Your task to perform on an android device: Empty the shopping cart on newegg. Search for razer blade on newegg, select the first entry, add it to the cart, then select checkout. Image 0: 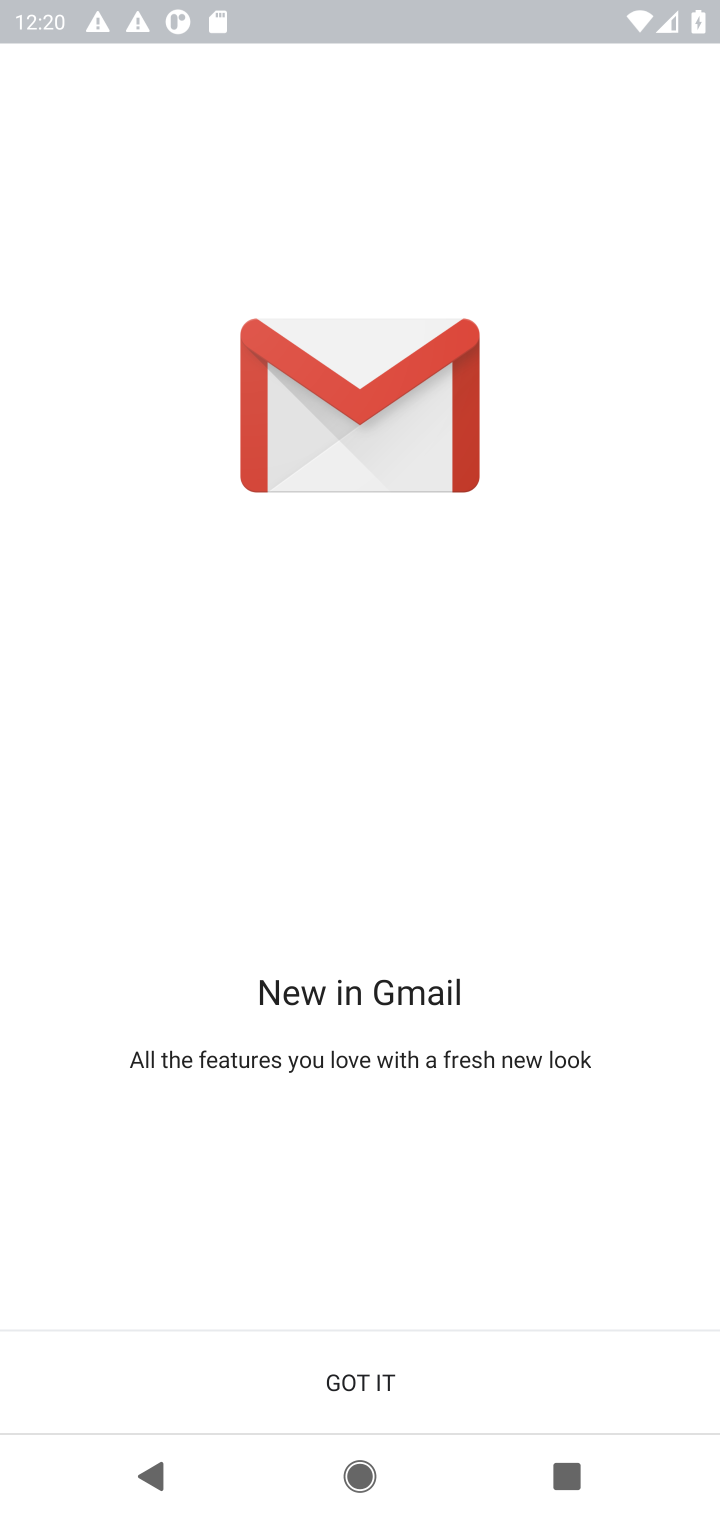
Step 0: press home button
Your task to perform on an android device: Empty the shopping cart on newegg. Search for razer blade on newegg, select the first entry, add it to the cart, then select checkout. Image 1: 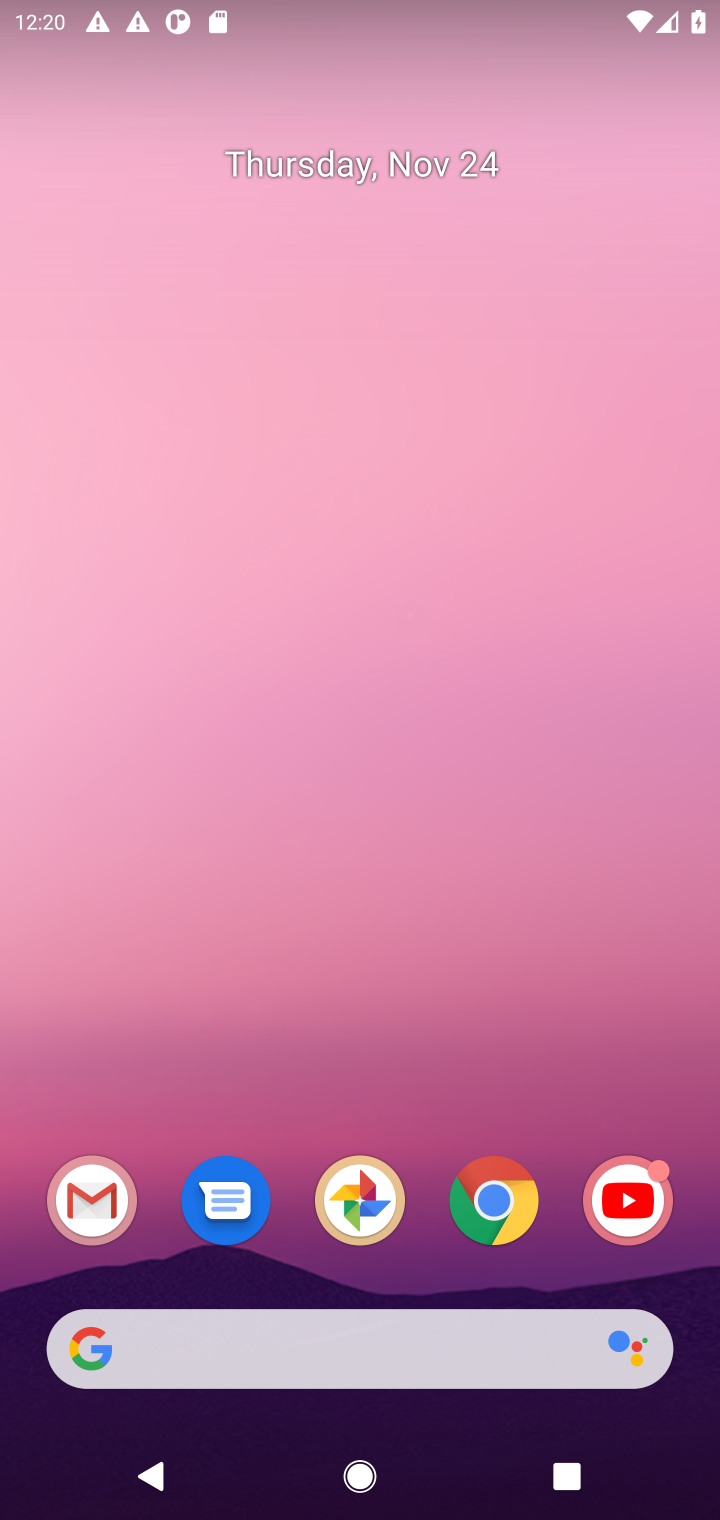
Step 1: click (460, 1377)
Your task to perform on an android device: Empty the shopping cart on newegg. Search for razer blade on newegg, select the first entry, add it to the cart, then select checkout. Image 2: 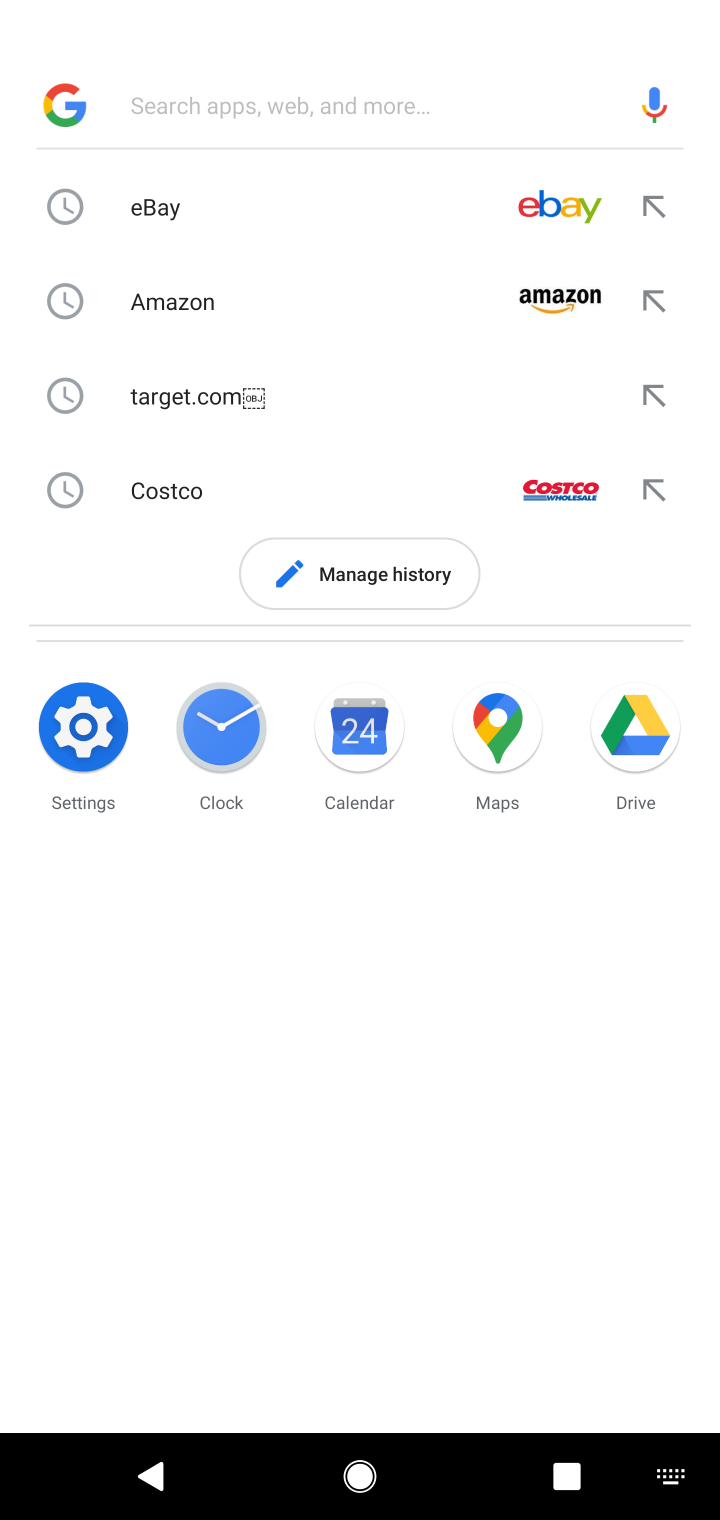
Step 2: type "newegg"
Your task to perform on an android device: Empty the shopping cart on newegg. Search for razer blade on newegg, select the first entry, add it to the cart, then select checkout. Image 3: 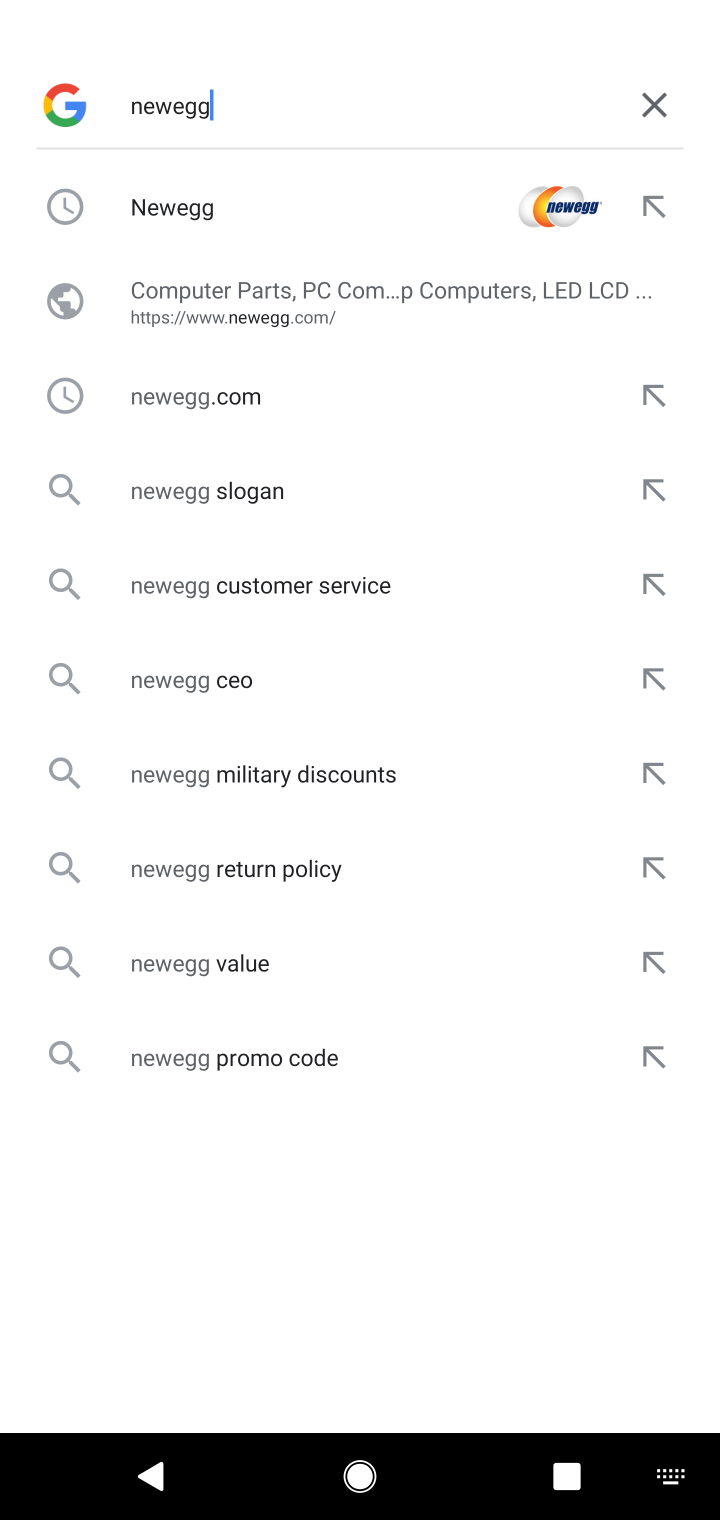
Step 3: click (309, 192)
Your task to perform on an android device: Empty the shopping cart on newegg. Search for razer blade on newegg, select the first entry, add it to the cart, then select checkout. Image 4: 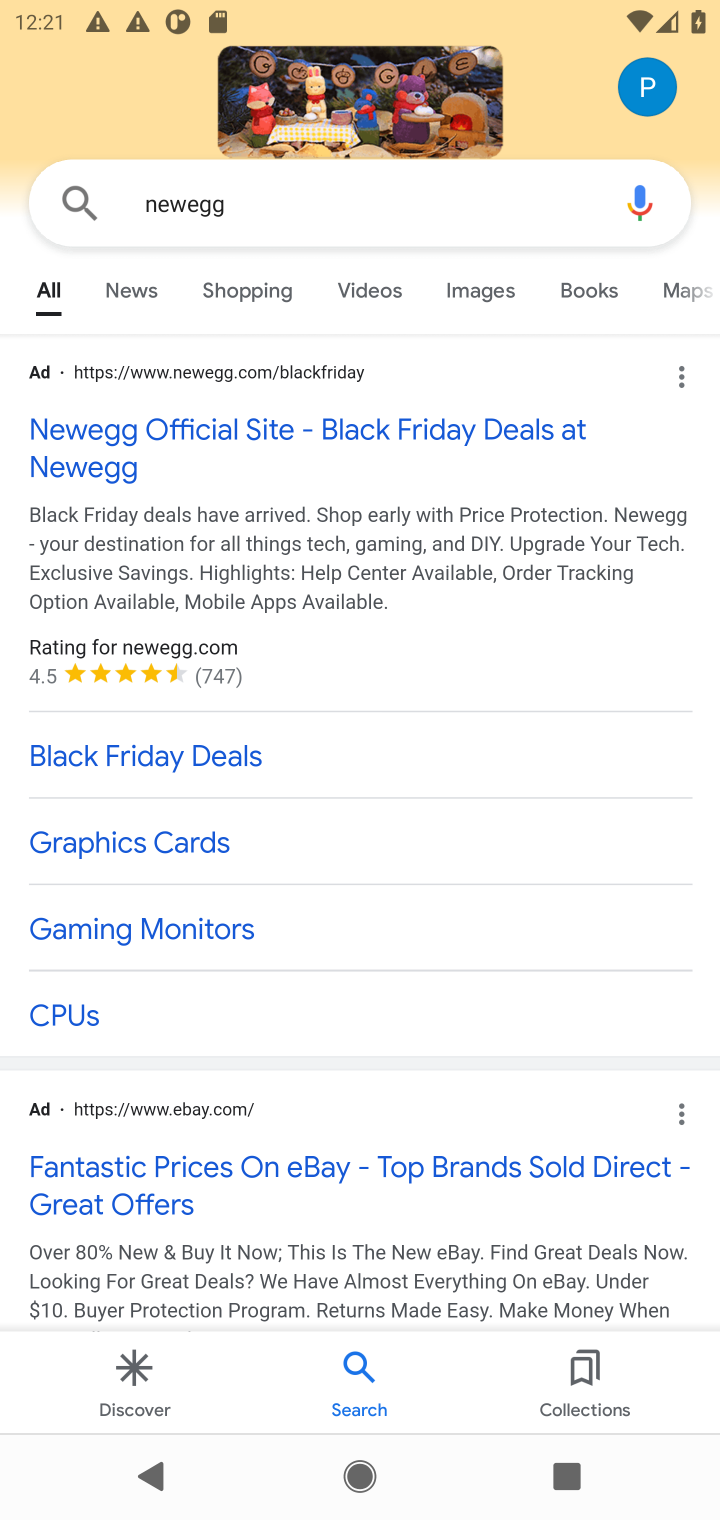
Step 4: click (273, 399)
Your task to perform on an android device: Empty the shopping cart on newegg. Search for razer blade on newegg, select the first entry, add it to the cart, then select checkout. Image 5: 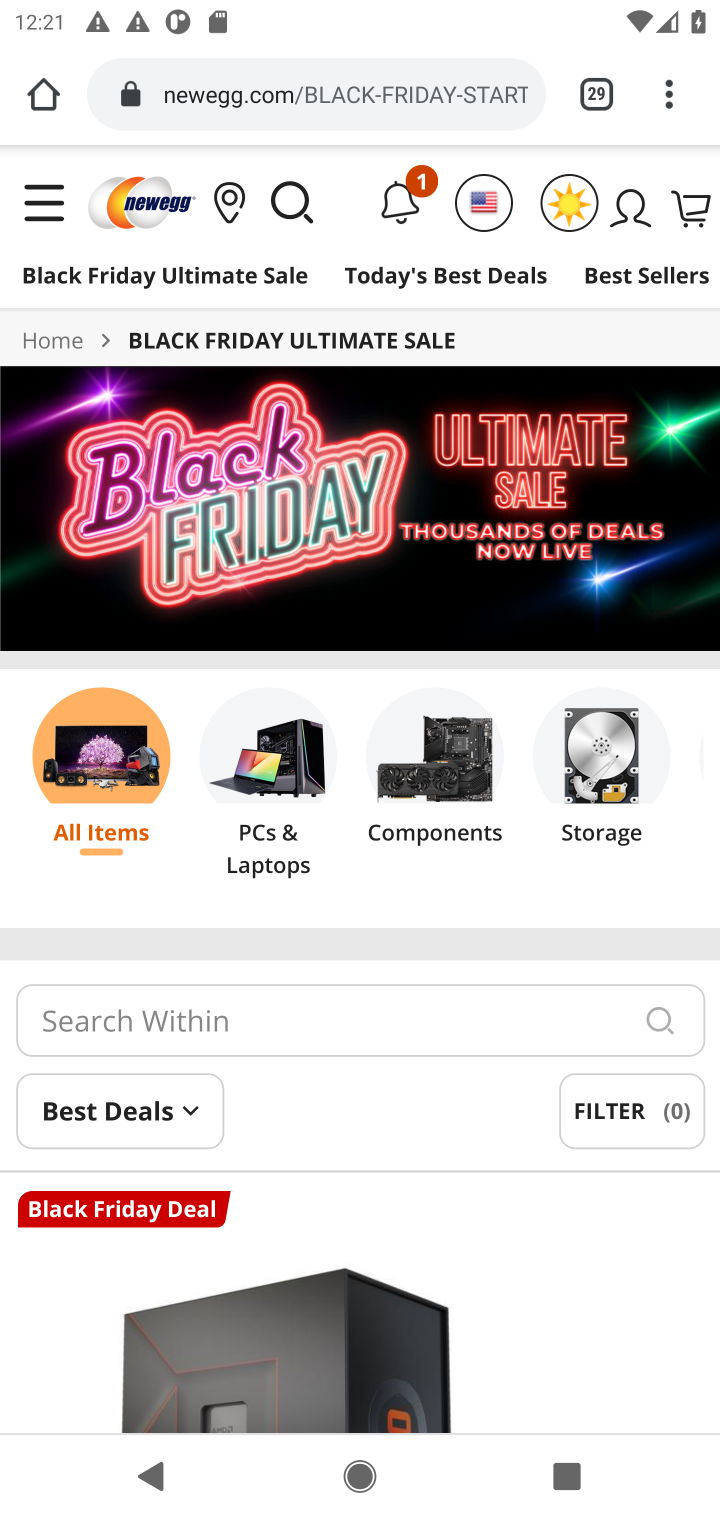
Step 5: click (302, 205)
Your task to perform on an android device: Empty the shopping cart on newegg. Search for razer blade on newegg, select the first entry, add it to the cart, then select checkout. Image 6: 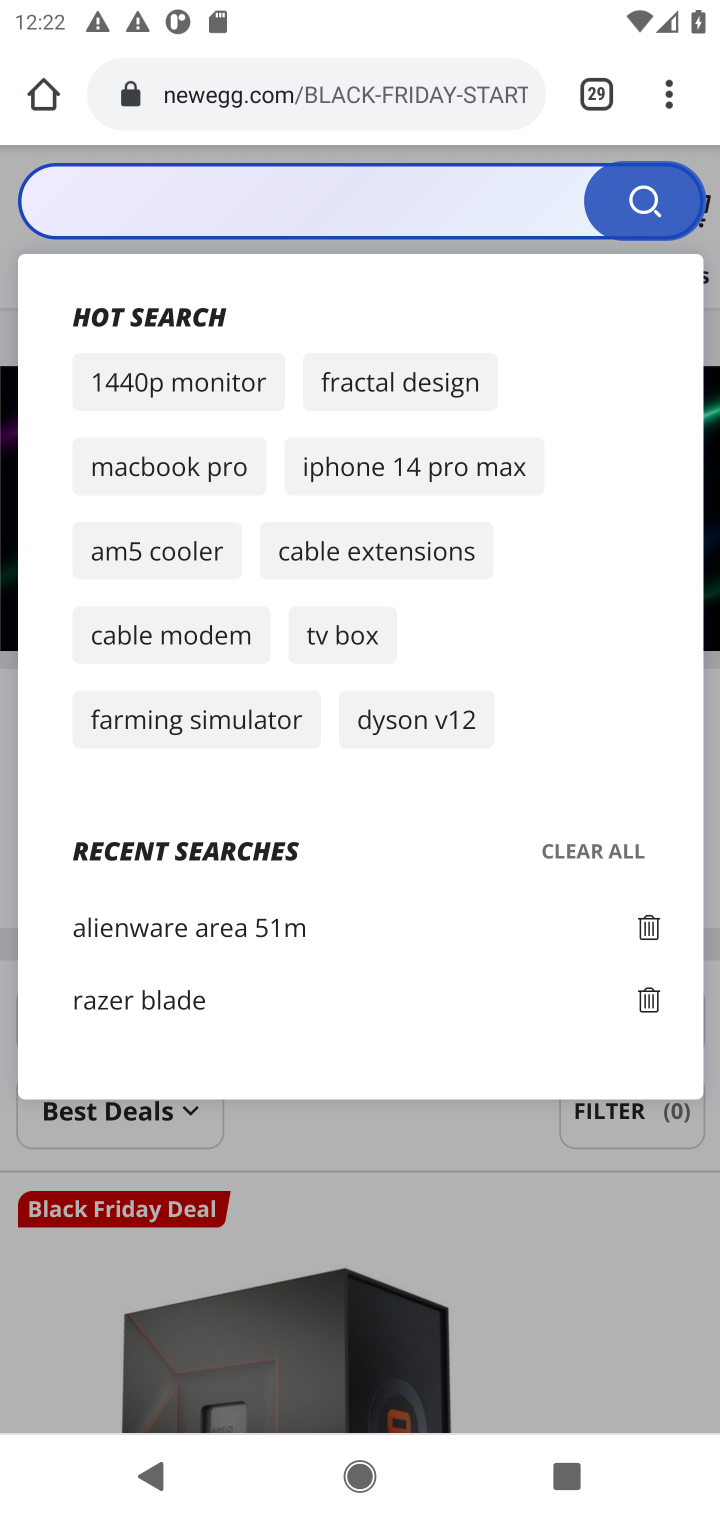
Step 6: type "razer blade"
Your task to perform on an android device: Empty the shopping cart on newegg. Search for razer blade on newegg, select the first entry, add it to the cart, then select checkout. Image 7: 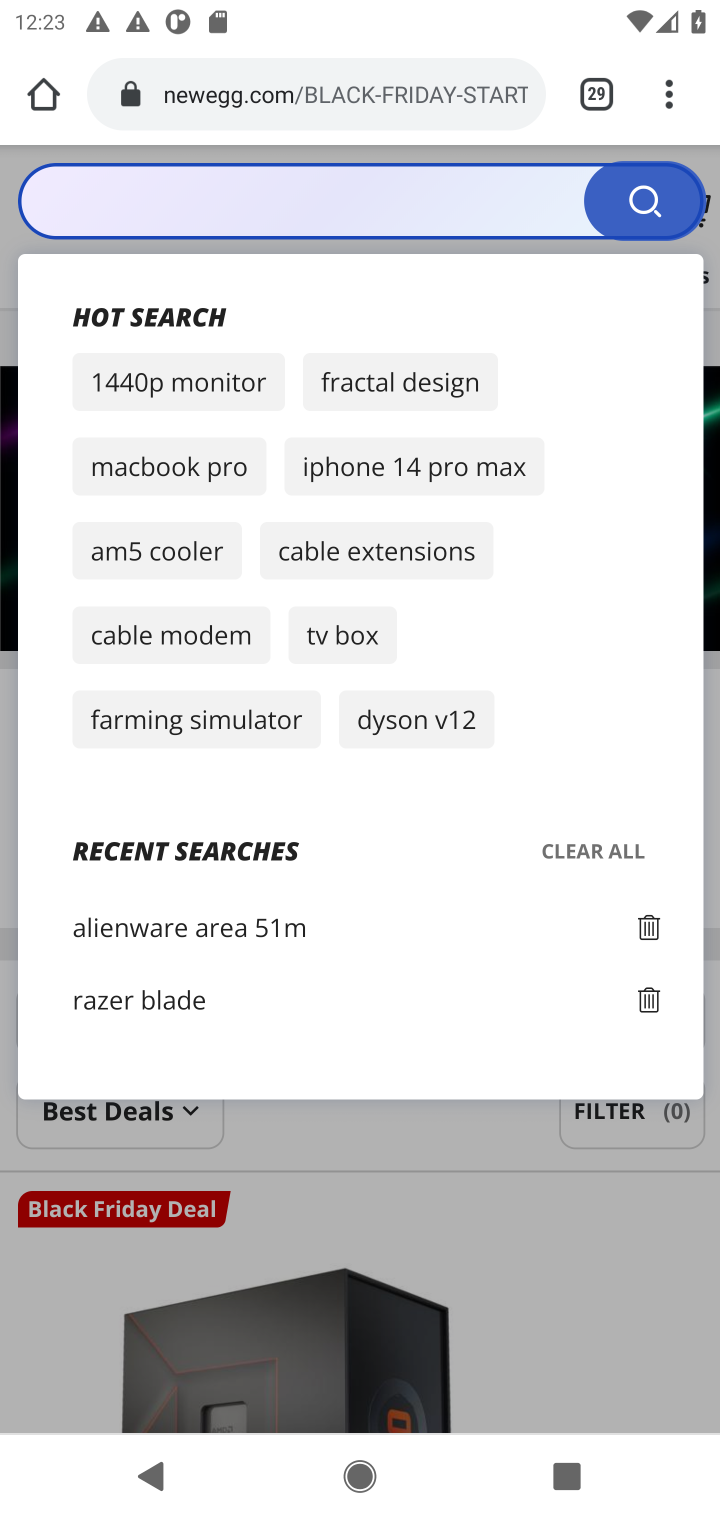
Step 7: task complete